Your task to perform on an android device: Open eBay Image 0: 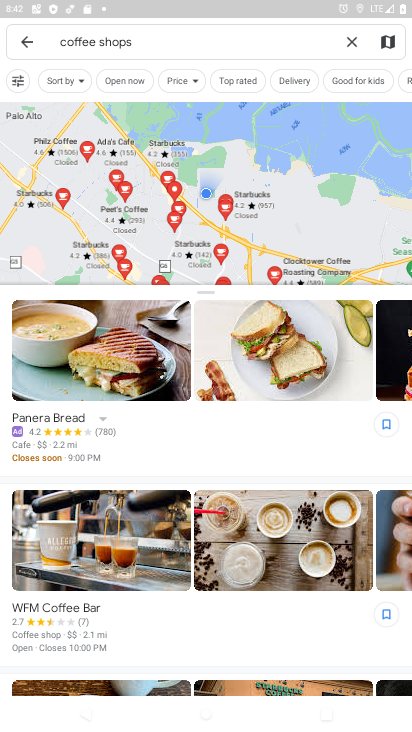
Step 0: press home button
Your task to perform on an android device: Open eBay Image 1: 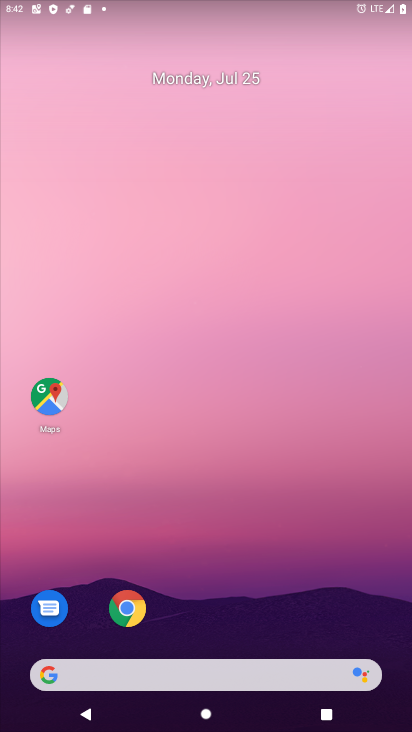
Step 1: drag from (243, 718) to (243, 203)
Your task to perform on an android device: Open eBay Image 2: 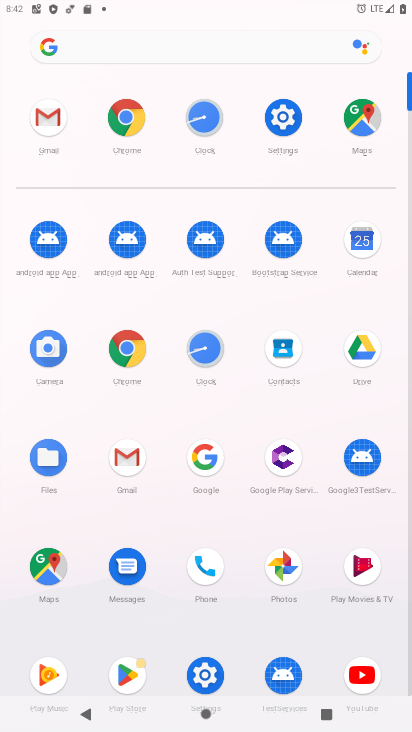
Step 2: click (122, 116)
Your task to perform on an android device: Open eBay Image 3: 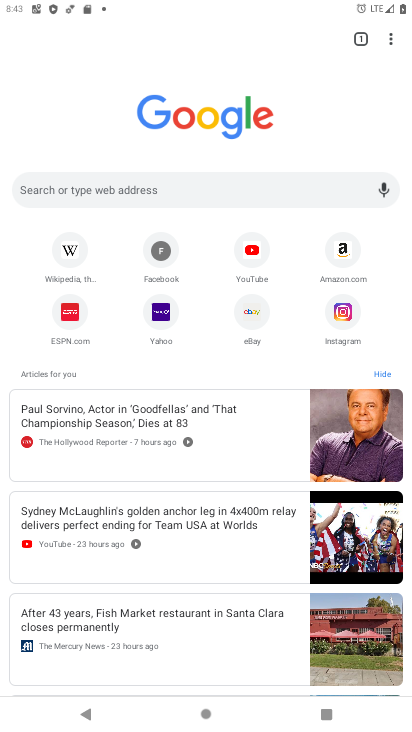
Step 3: click (256, 308)
Your task to perform on an android device: Open eBay Image 4: 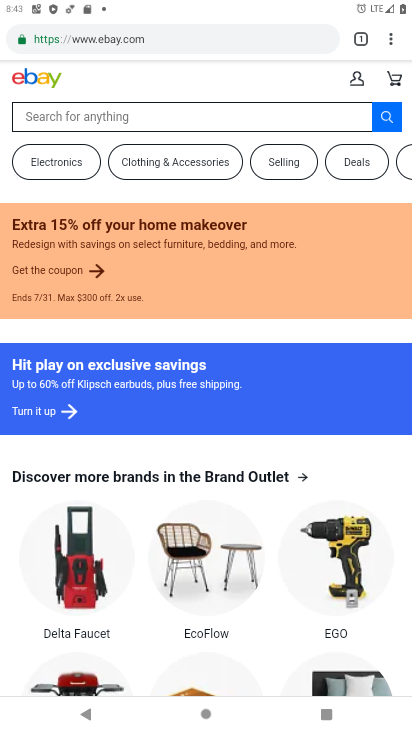
Step 4: task complete